Your task to perform on an android device: set the timer Image 0: 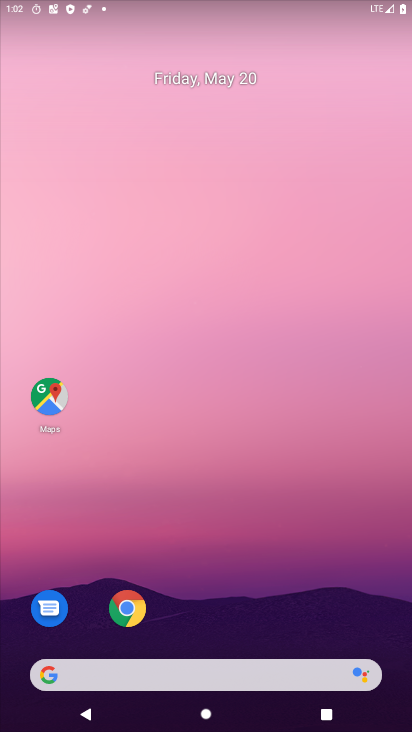
Step 0: drag from (303, 609) to (295, 214)
Your task to perform on an android device: set the timer Image 1: 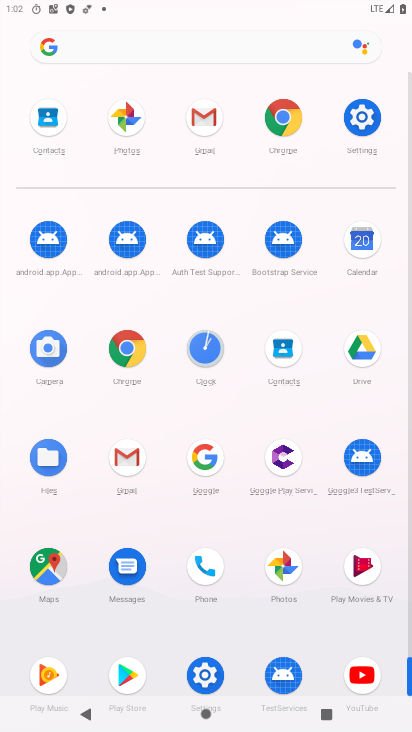
Step 1: click (208, 338)
Your task to perform on an android device: set the timer Image 2: 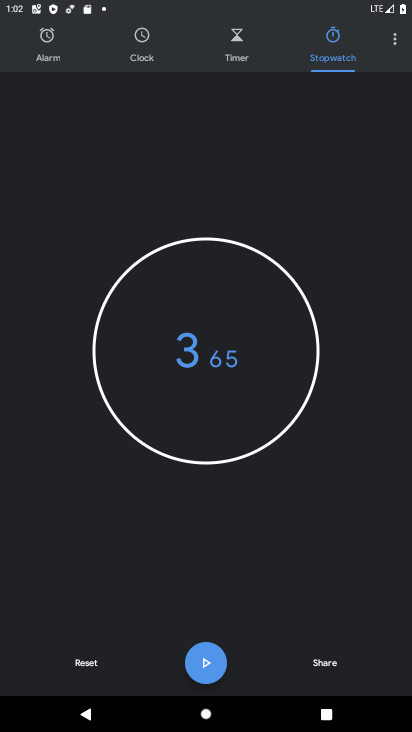
Step 2: click (224, 51)
Your task to perform on an android device: set the timer Image 3: 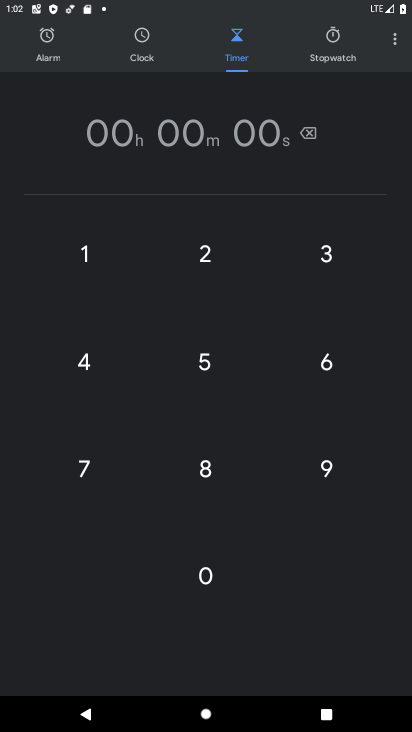
Step 3: click (96, 252)
Your task to perform on an android device: set the timer Image 4: 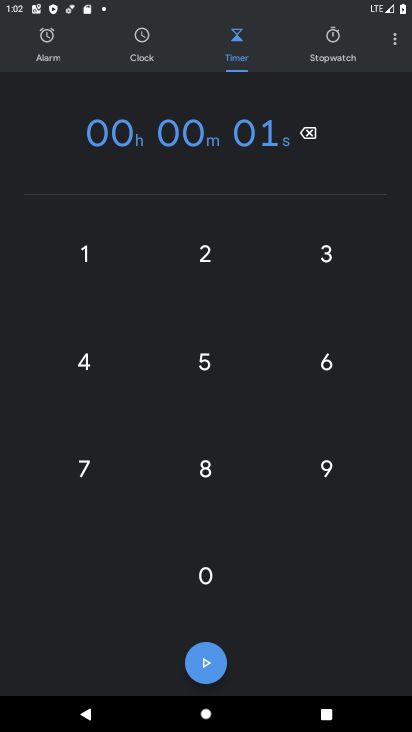
Step 4: click (205, 351)
Your task to perform on an android device: set the timer Image 5: 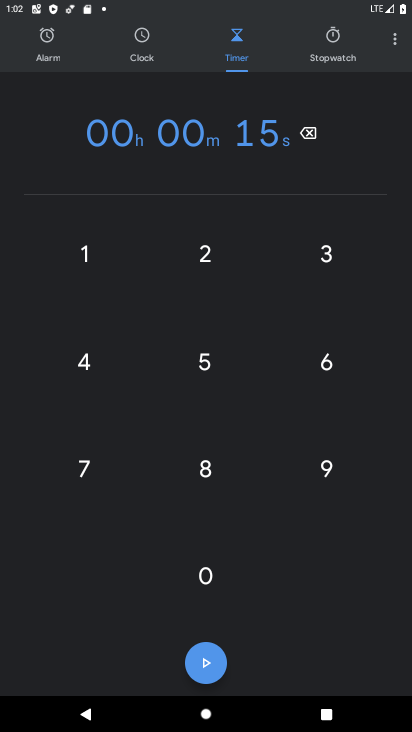
Step 5: click (220, 668)
Your task to perform on an android device: set the timer Image 6: 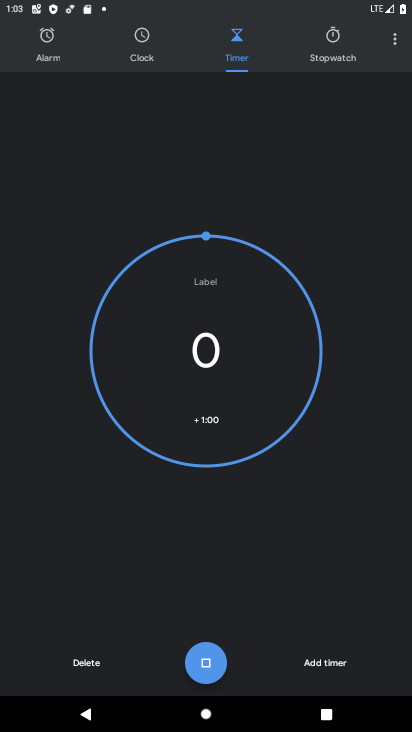
Step 6: click (206, 667)
Your task to perform on an android device: set the timer Image 7: 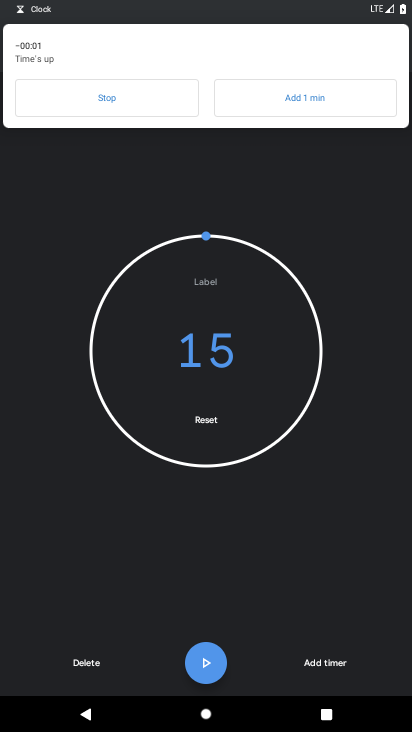
Step 7: click (114, 98)
Your task to perform on an android device: set the timer Image 8: 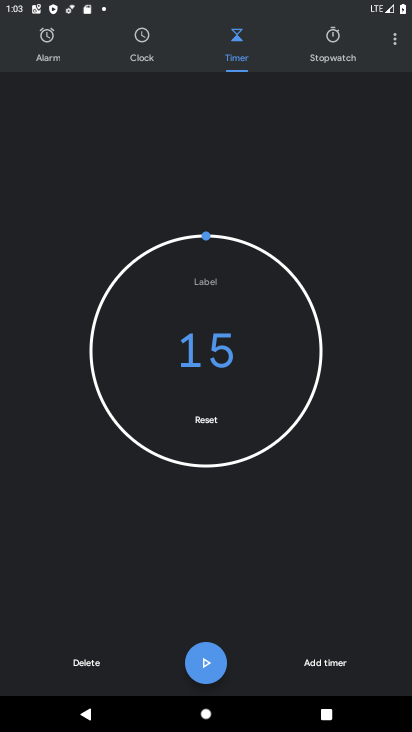
Step 8: task complete